Your task to perform on an android device: Open the phone app and click the voicemail tab. Image 0: 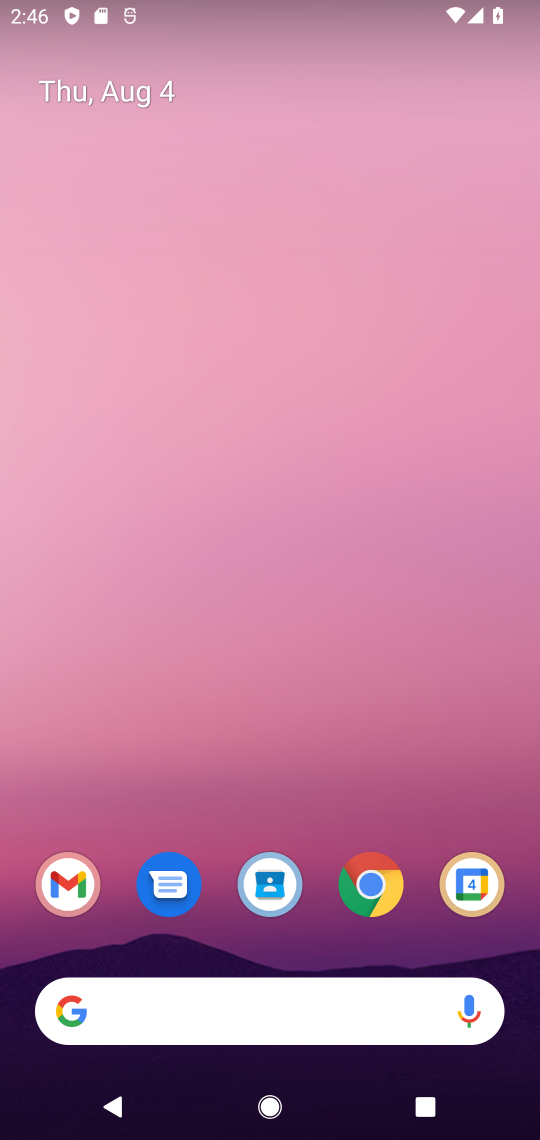
Step 0: drag from (336, 964) to (481, 392)
Your task to perform on an android device: Open the phone app and click the voicemail tab. Image 1: 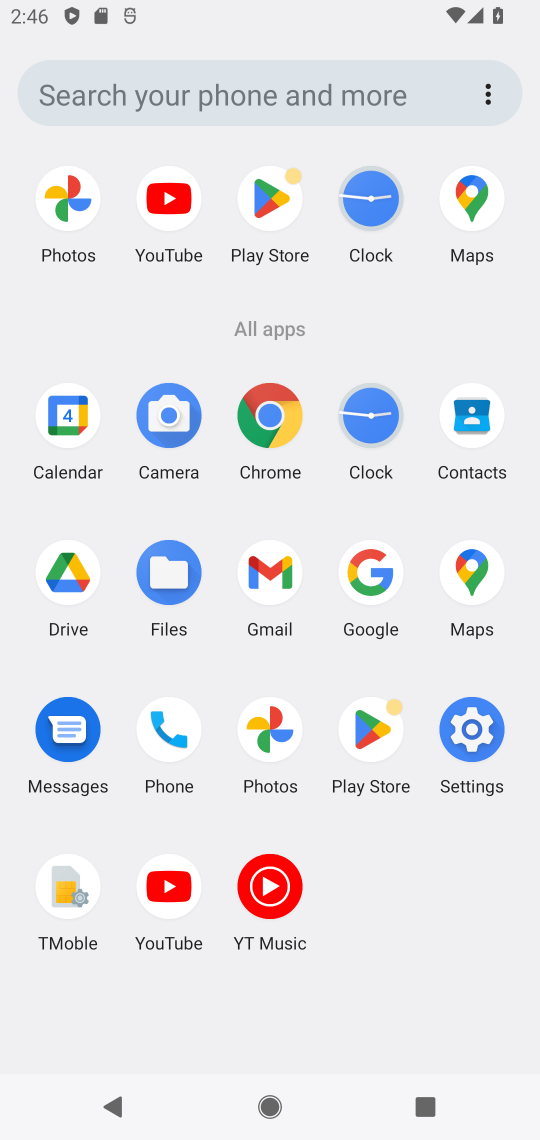
Step 1: click (162, 717)
Your task to perform on an android device: Open the phone app and click the voicemail tab. Image 2: 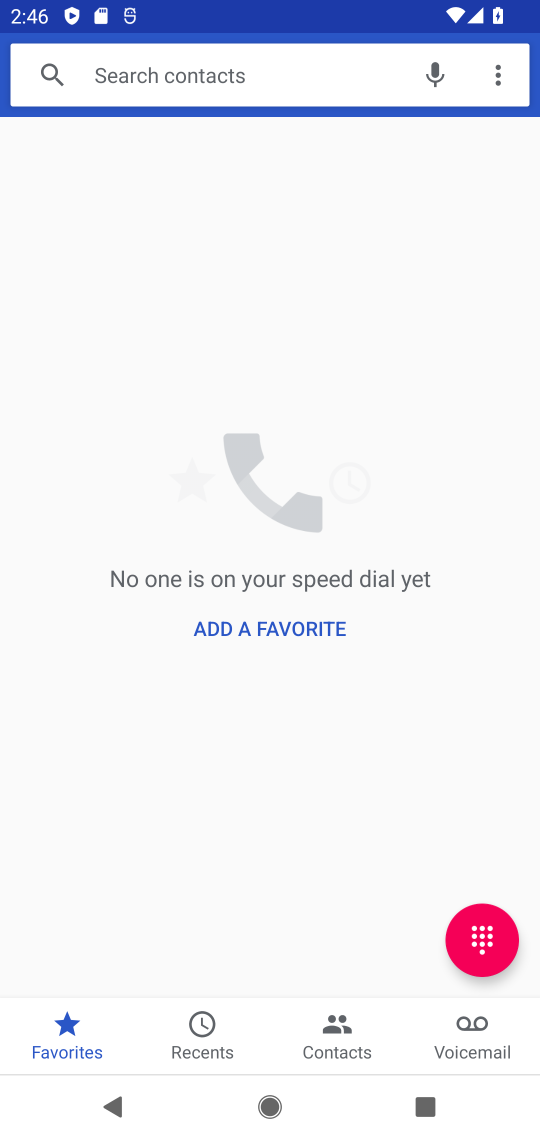
Step 2: click (449, 1034)
Your task to perform on an android device: Open the phone app and click the voicemail tab. Image 3: 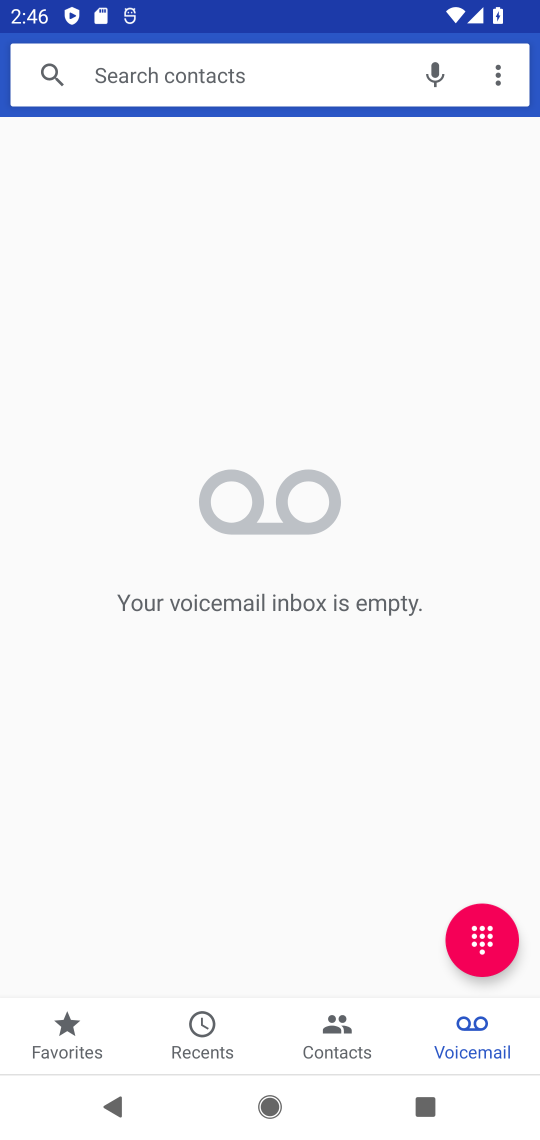
Step 3: task complete